Your task to perform on an android device: open app "Firefox Browser" (install if not already installed) Image 0: 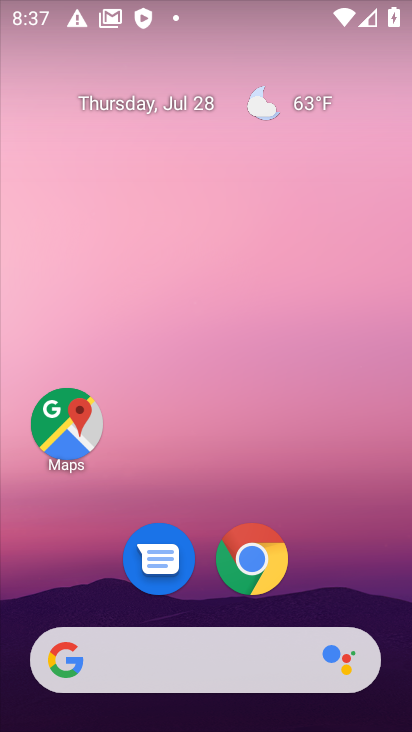
Step 0: drag from (312, 607) to (308, 9)
Your task to perform on an android device: open app "Firefox Browser" (install if not already installed) Image 1: 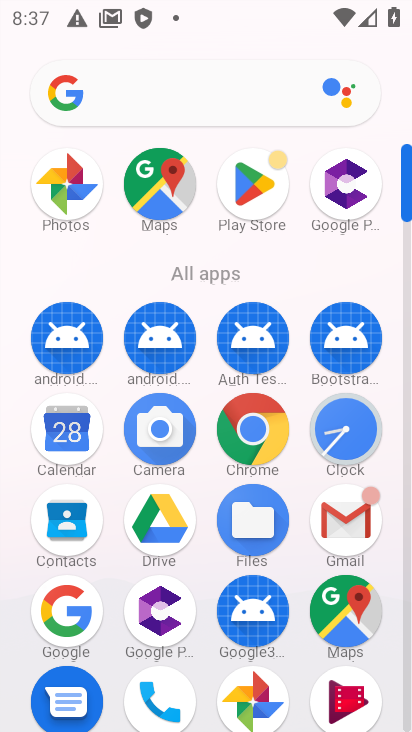
Step 1: click (251, 178)
Your task to perform on an android device: open app "Firefox Browser" (install if not already installed) Image 2: 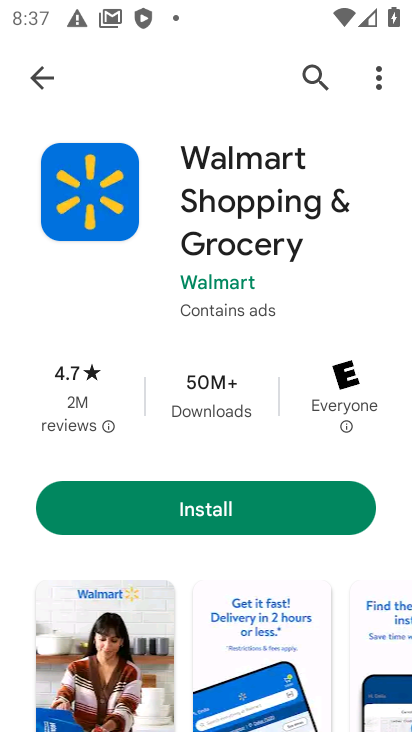
Step 2: click (311, 74)
Your task to perform on an android device: open app "Firefox Browser" (install if not already installed) Image 3: 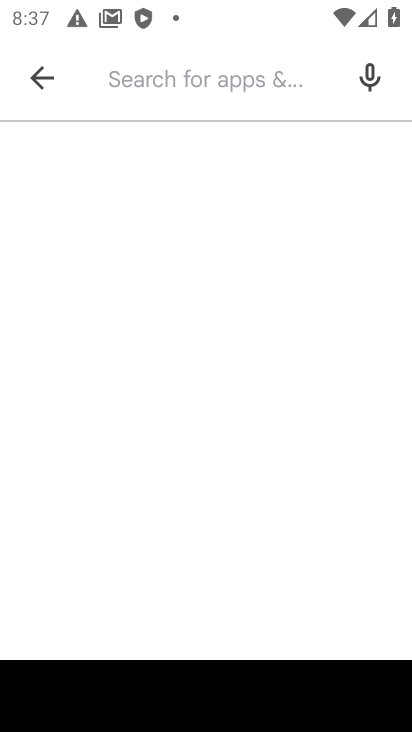
Step 3: type "Firefox Browser"
Your task to perform on an android device: open app "Firefox Browser" (install if not already installed) Image 4: 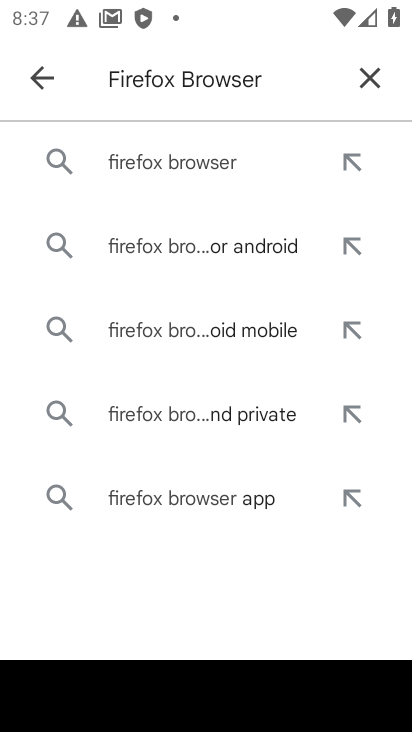
Step 4: click (141, 170)
Your task to perform on an android device: open app "Firefox Browser" (install if not already installed) Image 5: 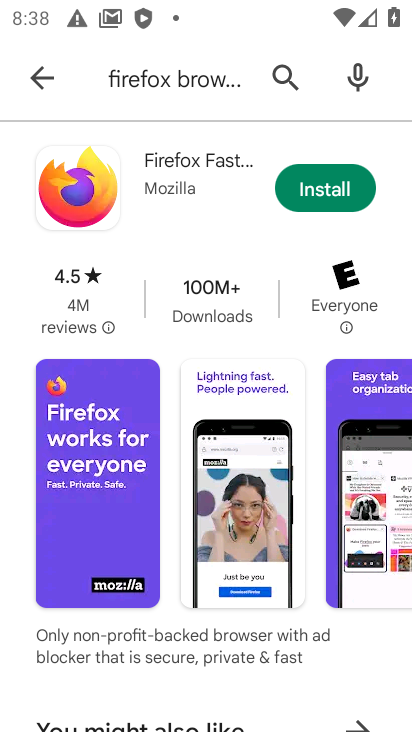
Step 5: click (320, 201)
Your task to perform on an android device: open app "Firefox Browser" (install if not already installed) Image 6: 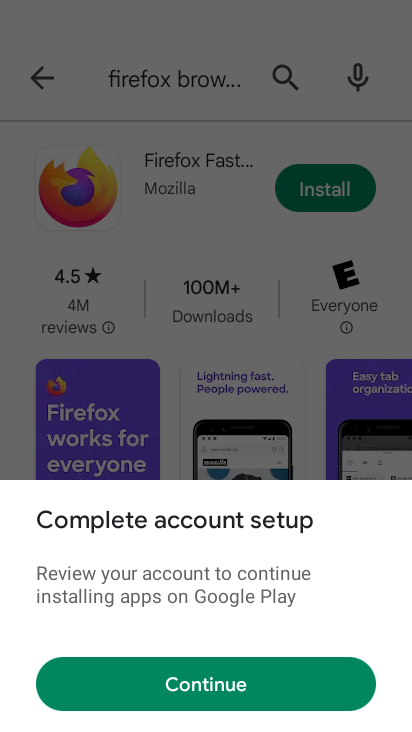
Step 6: click (234, 692)
Your task to perform on an android device: open app "Firefox Browser" (install if not already installed) Image 7: 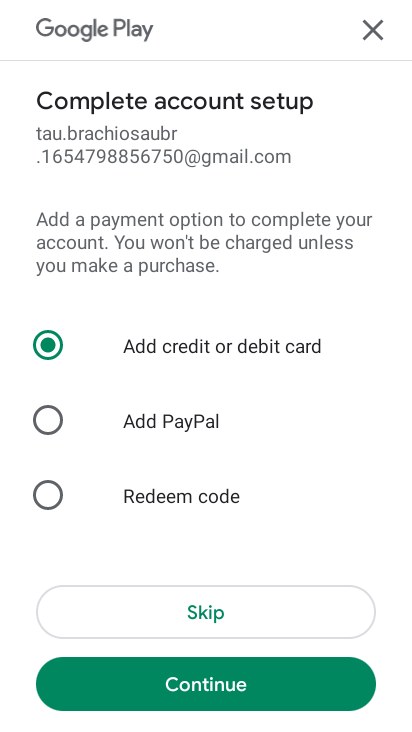
Step 7: click (197, 612)
Your task to perform on an android device: open app "Firefox Browser" (install if not already installed) Image 8: 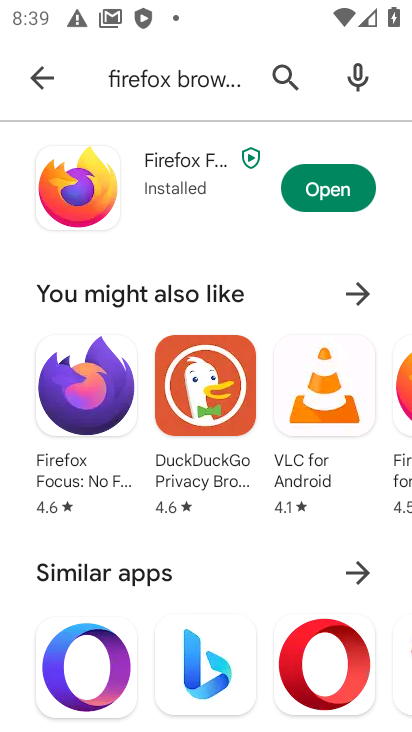
Step 8: click (327, 194)
Your task to perform on an android device: open app "Firefox Browser" (install if not already installed) Image 9: 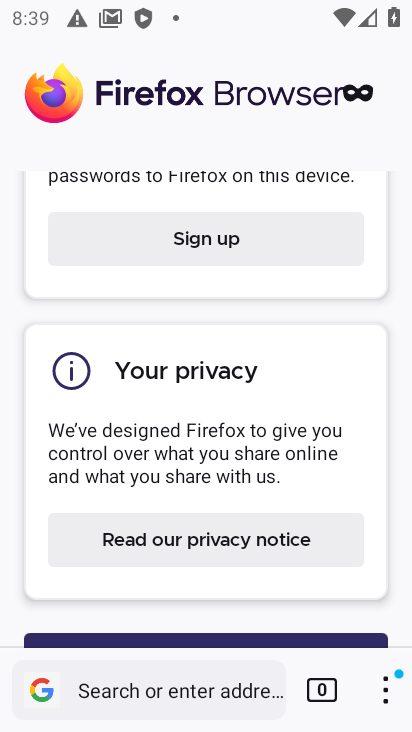
Step 9: task complete